Your task to perform on an android device: Go to network settings Image 0: 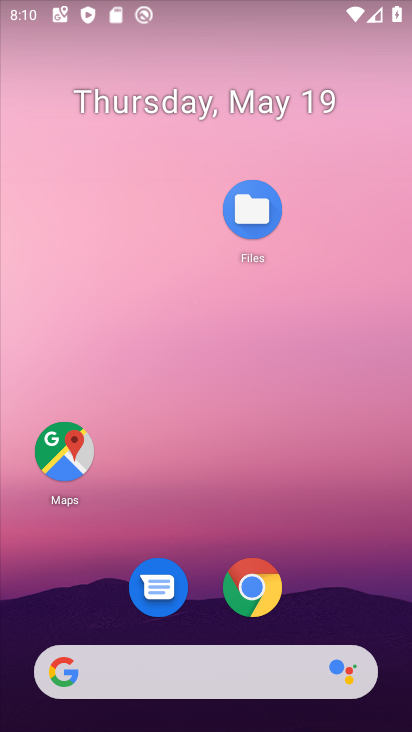
Step 0: click (180, 40)
Your task to perform on an android device: Go to network settings Image 1: 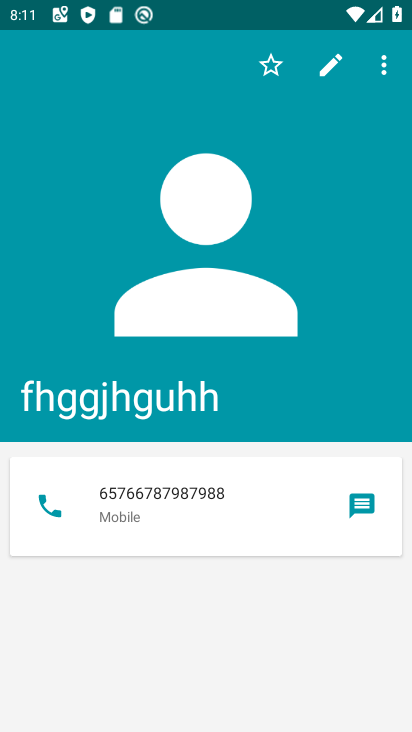
Step 1: press back button
Your task to perform on an android device: Go to network settings Image 2: 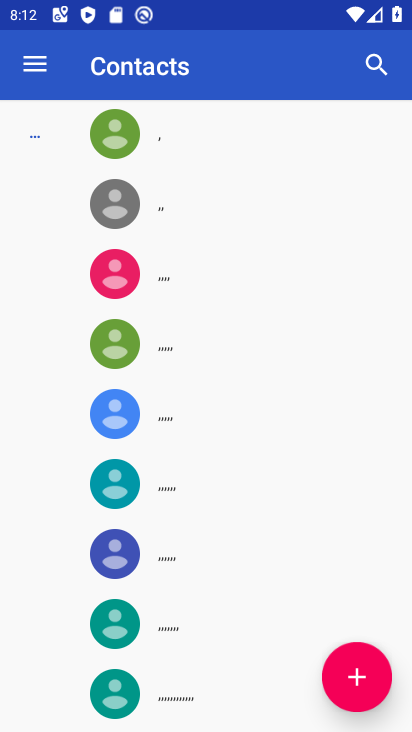
Step 2: press back button
Your task to perform on an android device: Go to network settings Image 3: 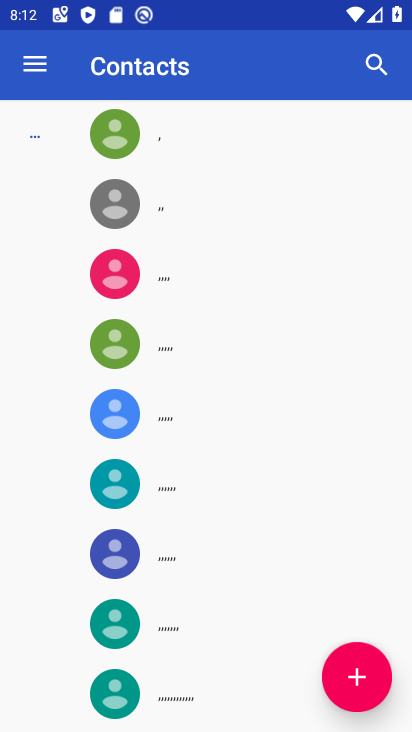
Step 3: press home button
Your task to perform on an android device: Go to network settings Image 4: 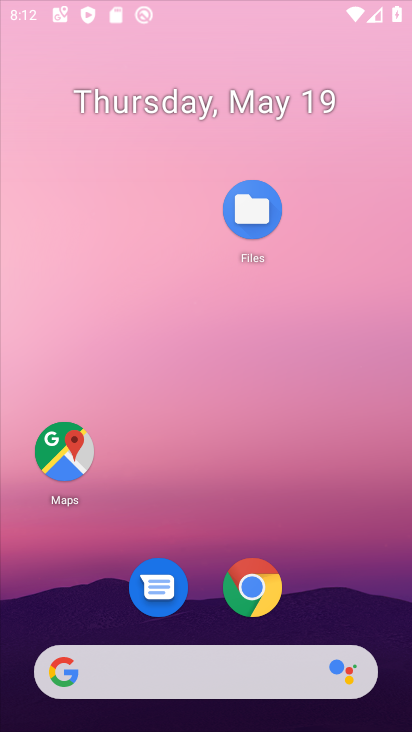
Step 4: press back button
Your task to perform on an android device: Go to network settings Image 5: 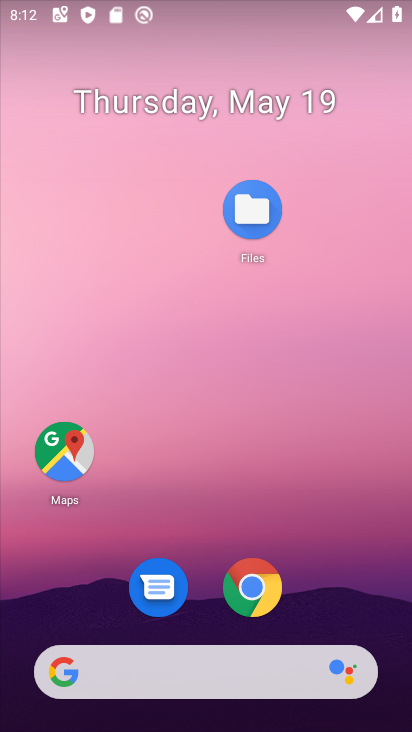
Step 5: press back button
Your task to perform on an android device: Go to network settings Image 6: 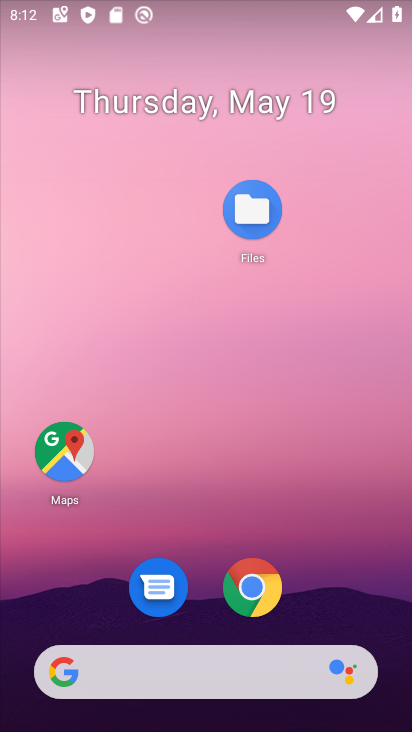
Step 6: drag from (274, 577) to (249, 98)
Your task to perform on an android device: Go to network settings Image 7: 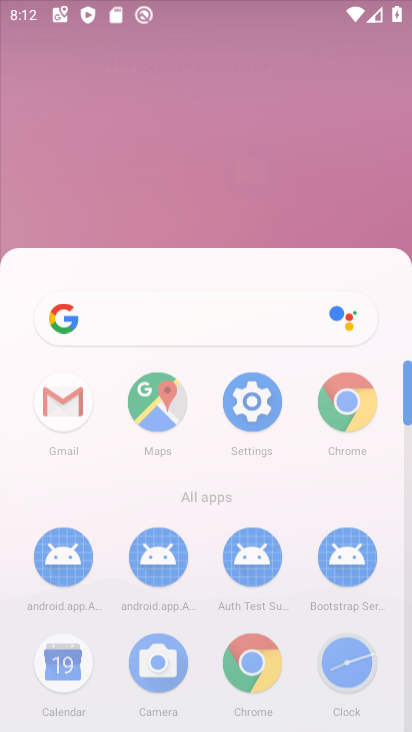
Step 7: click (269, 56)
Your task to perform on an android device: Go to network settings Image 8: 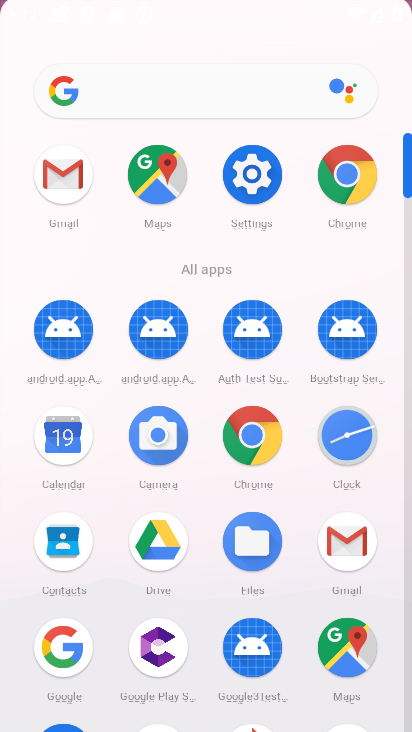
Step 8: drag from (334, 609) to (230, 22)
Your task to perform on an android device: Go to network settings Image 9: 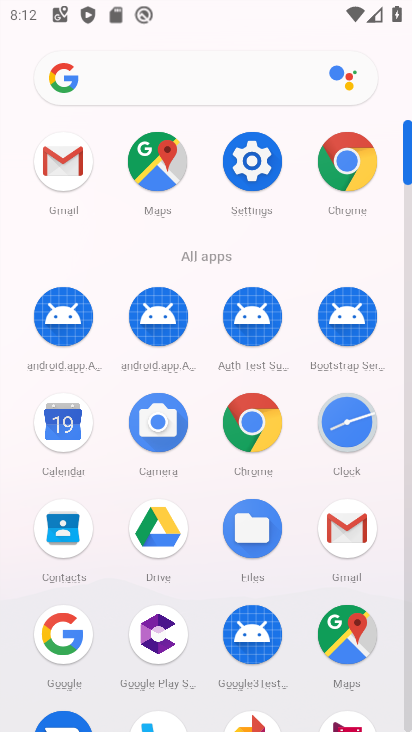
Step 9: click (258, 166)
Your task to perform on an android device: Go to network settings Image 10: 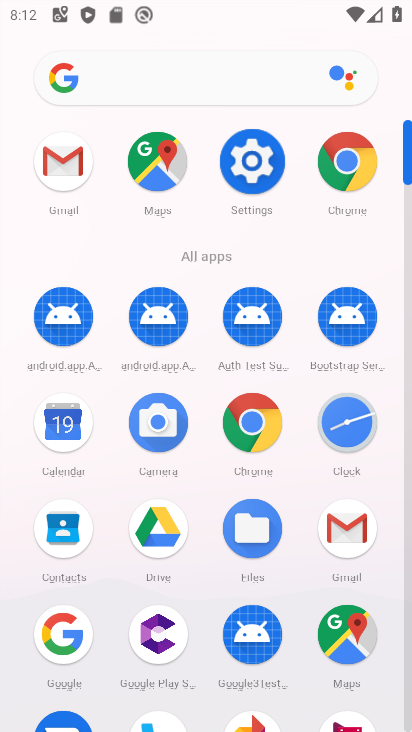
Step 10: click (258, 166)
Your task to perform on an android device: Go to network settings Image 11: 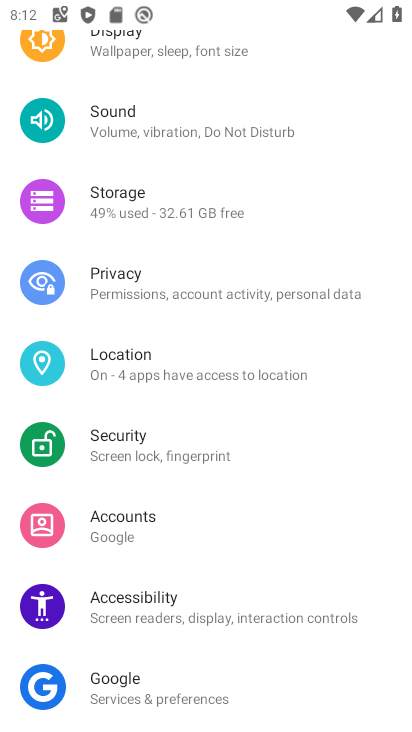
Step 11: click (258, 166)
Your task to perform on an android device: Go to network settings Image 12: 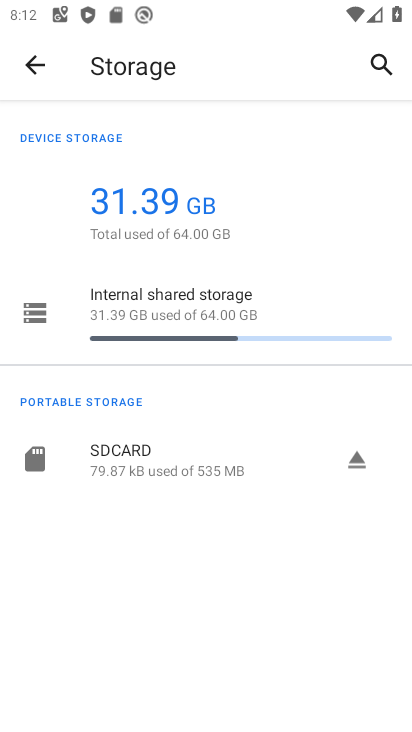
Step 12: click (41, 68)
Your task to perform on an android device: Go to network settings Image 13: 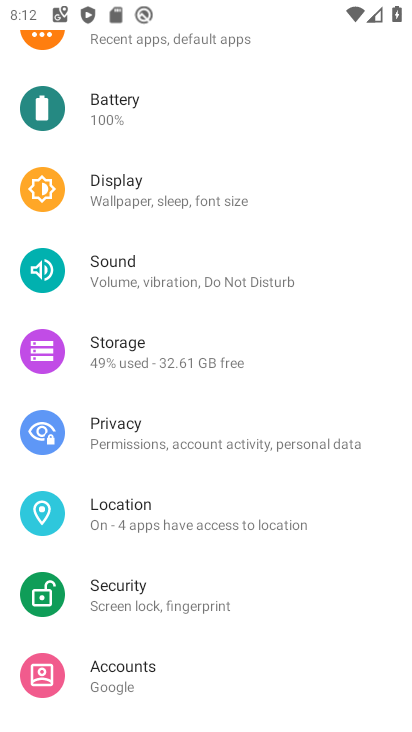
Step 13: drag from (129, 173) to (226, 511)
Your task to perform on an android device: Go to network settings Image 14: 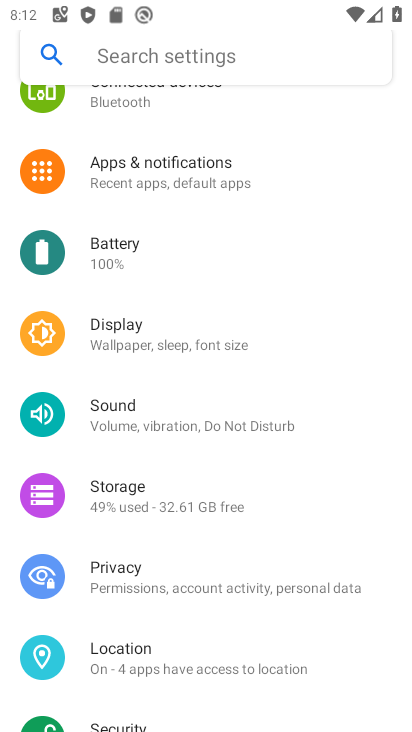
Step 14: drag from (147, 249) to (279, 643)
Your task to perform on an android device: Go to network settings Image 15: 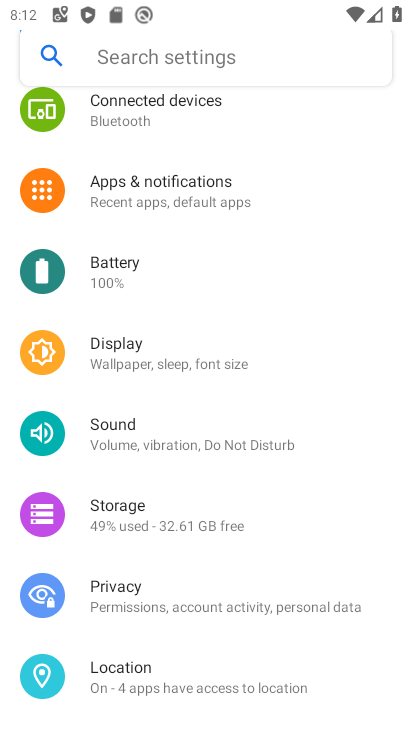
Step 15: drag from (169, 172) to (252, 563)
Your task to perform on an android device: Go to network settings Image 16: 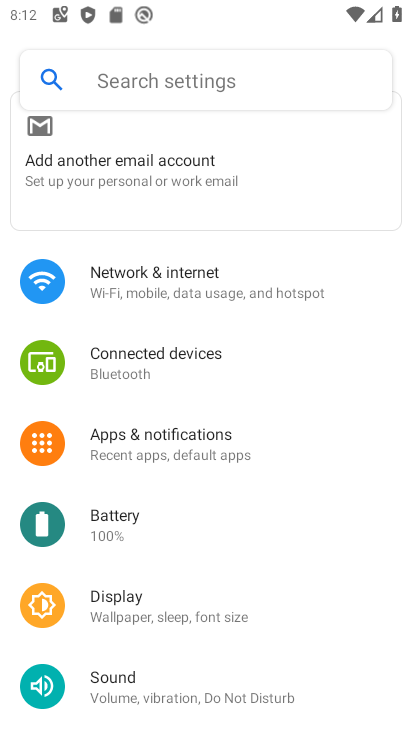
Step 16: click (182, 270)
Your task to perform on an android device: Go to network settings Image 17: 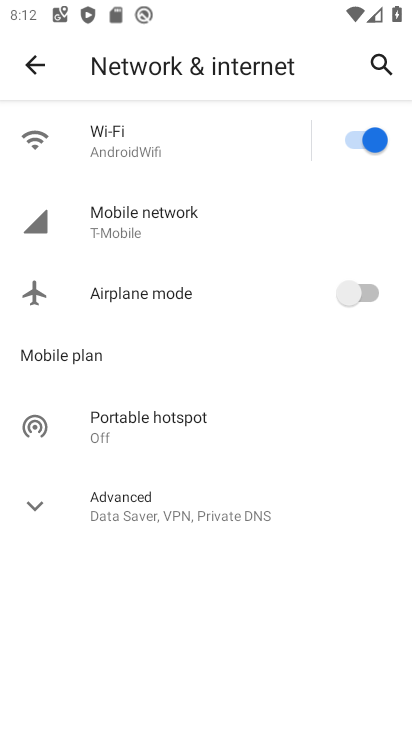
Step 17: task complete